Your task to perform on an android device: check battery use Image 0: 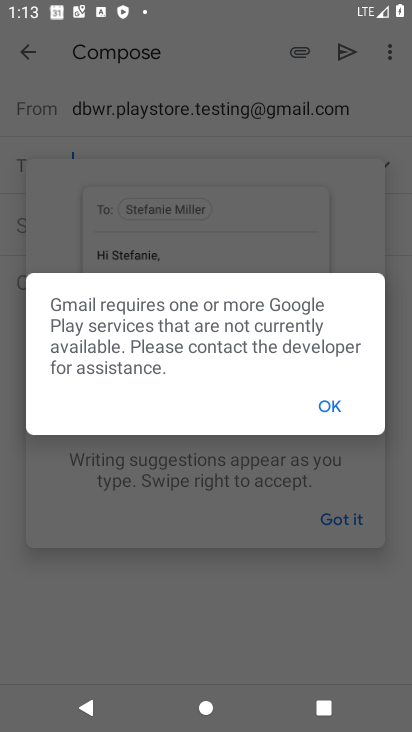
Step 0: press home button
Your task to perform on an android device: check battery use Image 1: 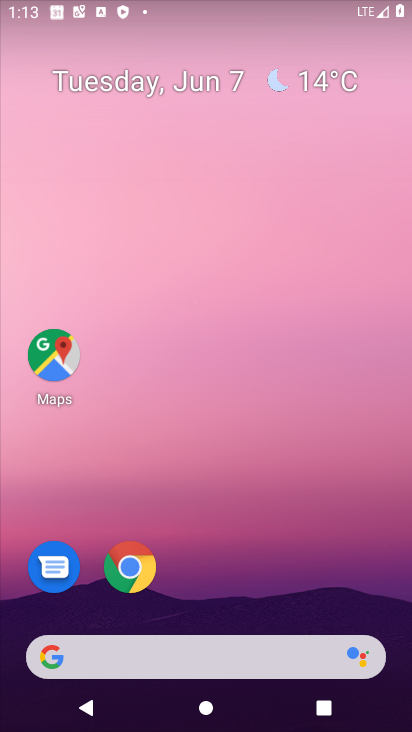
Step 1: drag from (228, 660) to (278, 12)
Your task to perform on an android device: check battery use Image 2: 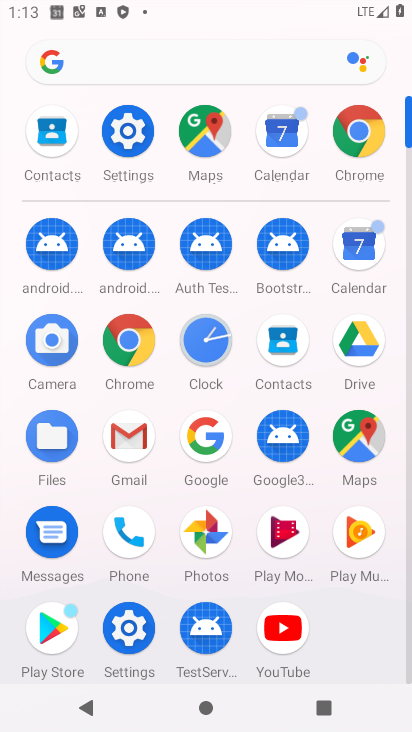
Step 2: click (129, 123)
Your task to perform on an android device: check battery use Image 3: 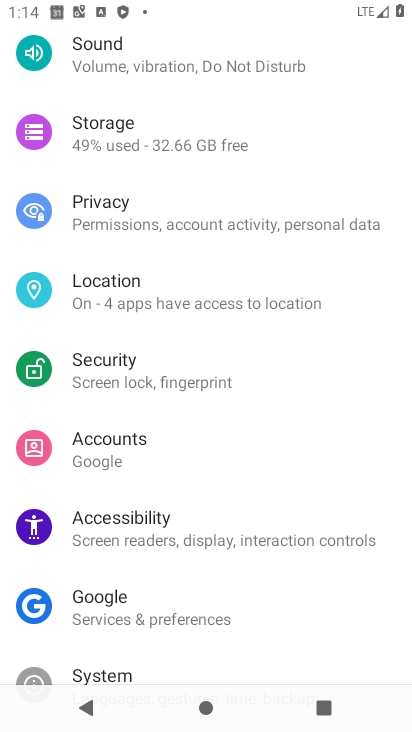
Step 3: drag from (171, 264) to (184, 705)
Your task to perform on an android device: check battery use Image 4: 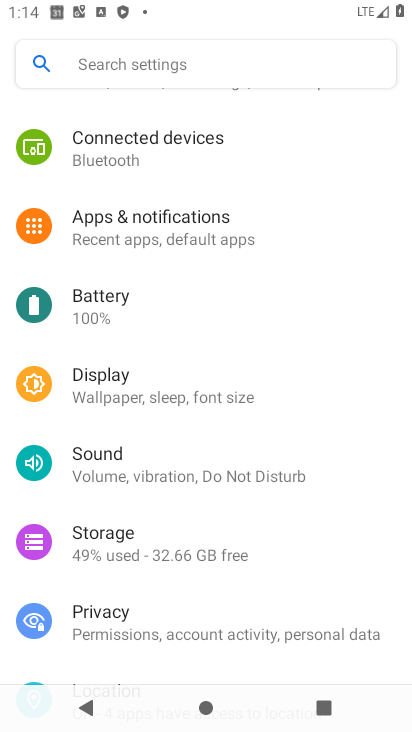
Step 4: click (142, 304)
Your task to perform on an android device: check battery use Image 5: 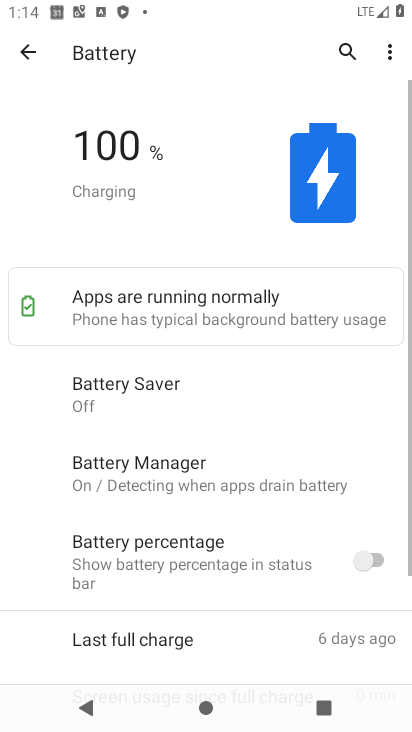
Step 5: task complete